Your task to perform on an android device: Open my contact list Image 0: 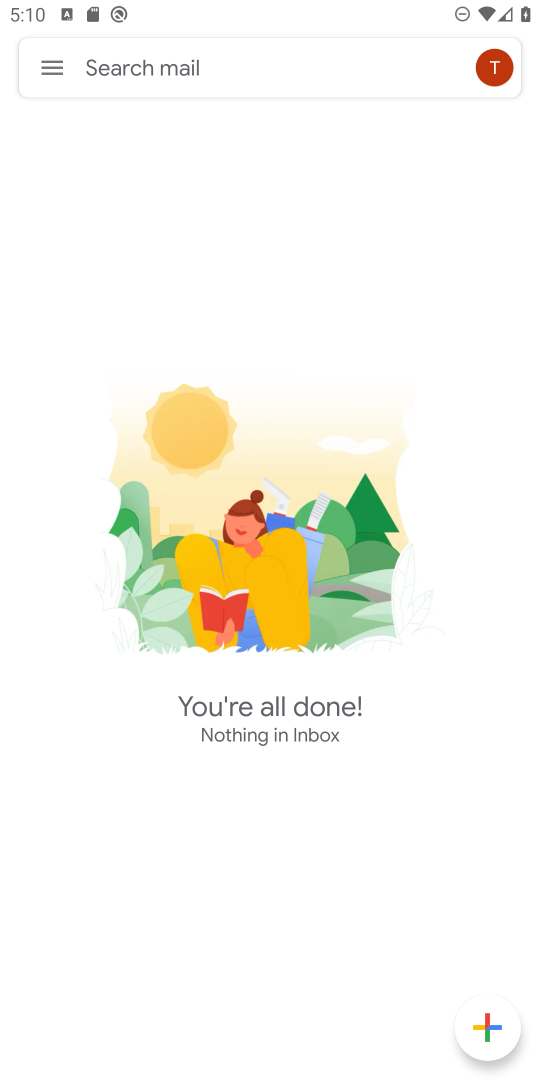
Step 0: press home button
Your task to perform on an android device: Open my contact list Image 1: 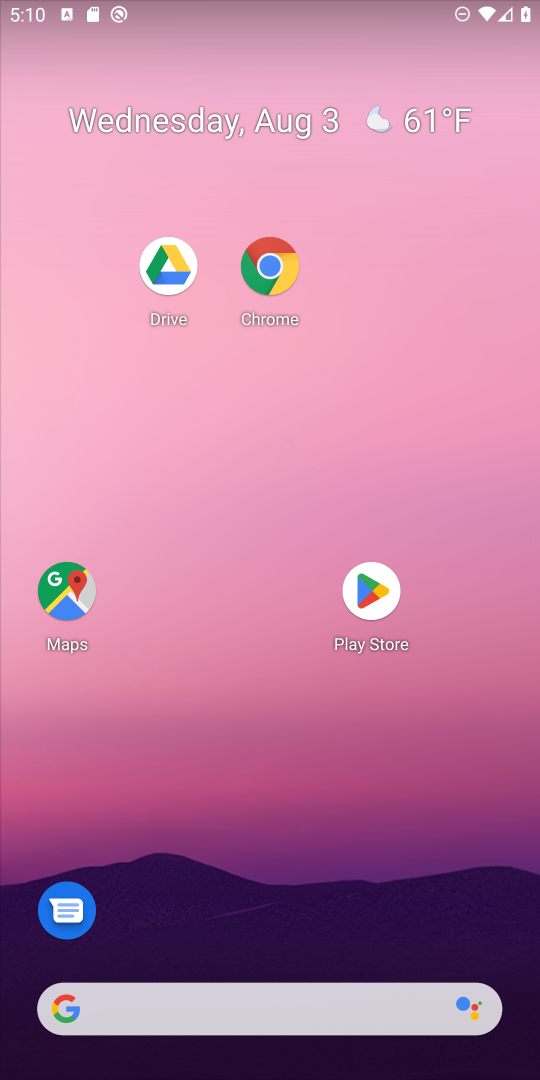
Step 1: drag from (388, 907) to (414, 10)
Your task to perform on an android device: Open my contact list Image 2: 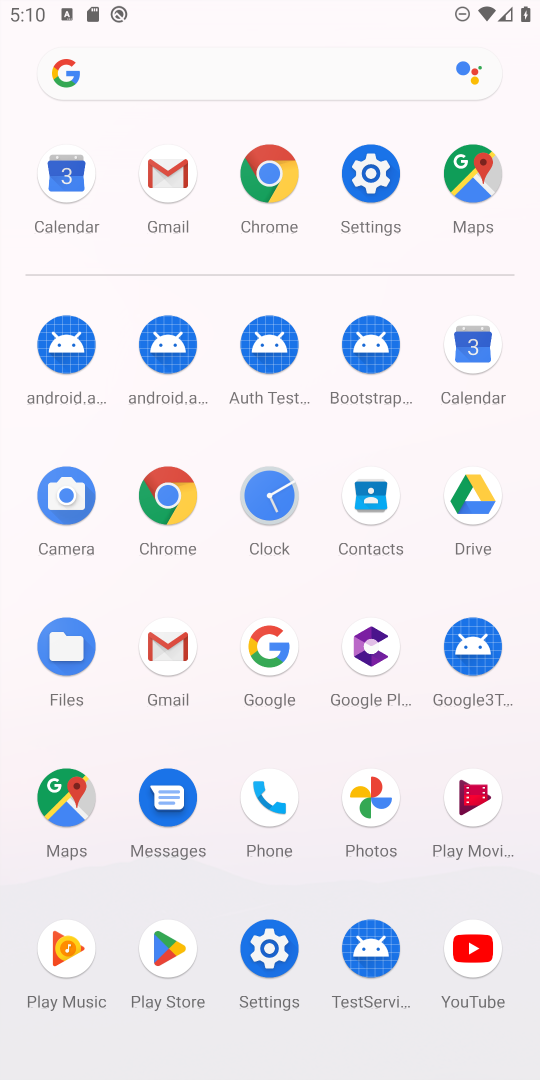
Step 2: click (368, 501)
Your task to perform on an android device: Open my contact list Image 3: 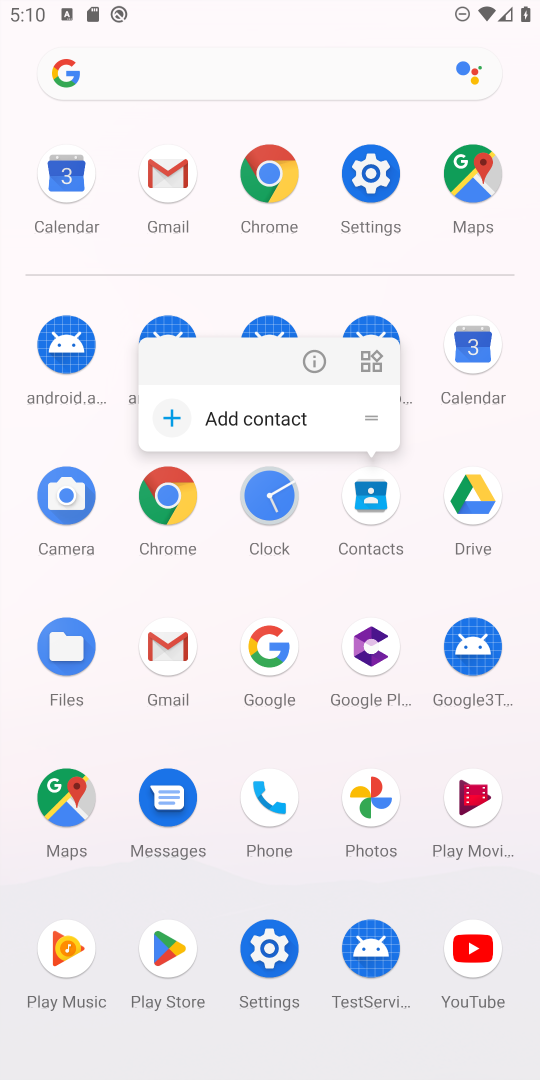
Step 3: click (367, 509)
Your task to perform on an android device: Open my contact list Image 4: 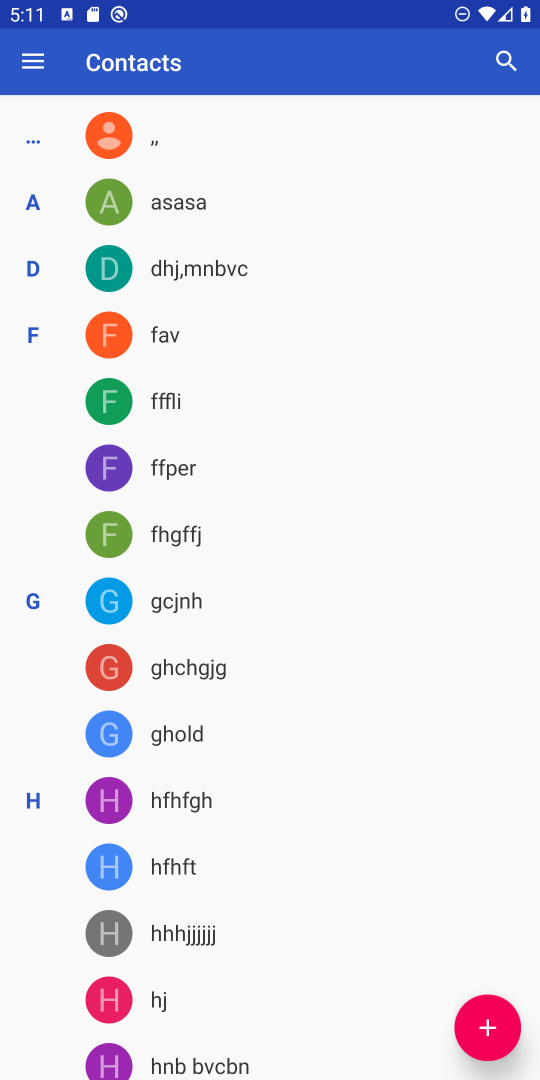
Step 4: task complete